Your task to perform on an android device: turn off airplane mode Image 0: 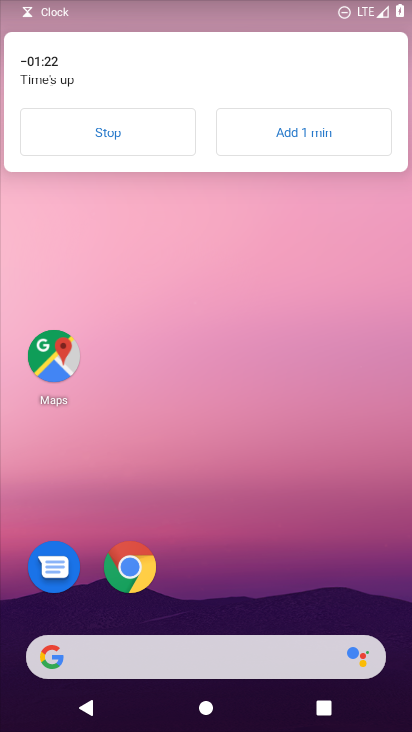
Step 0: click (124, 136)
Your task to perform on an android device: turn off airplane mode Image 1: 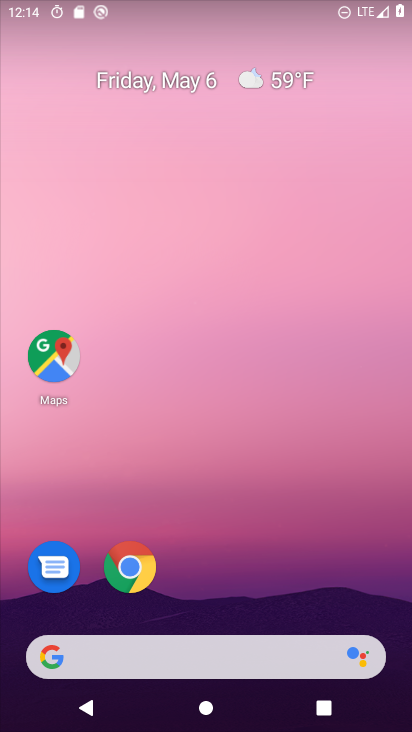
Step 1: drag from (284, 534) to (293, 13)
Your task to perform on an android device: turn off airplane mode Image 2: 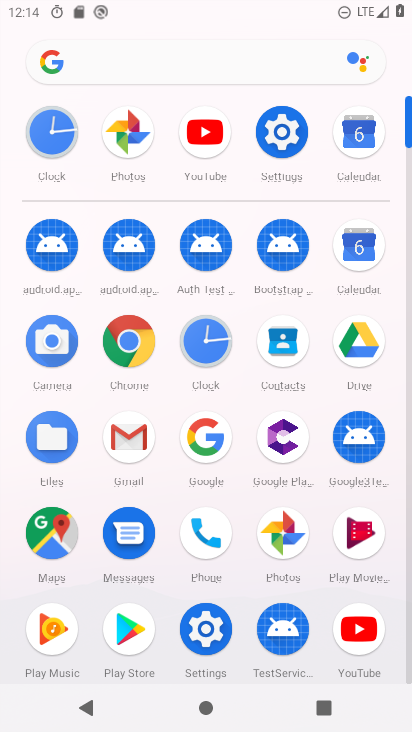
Step 2: click (279, 138)
Your task to perform on an android device: turn off airplane mode Image 3: 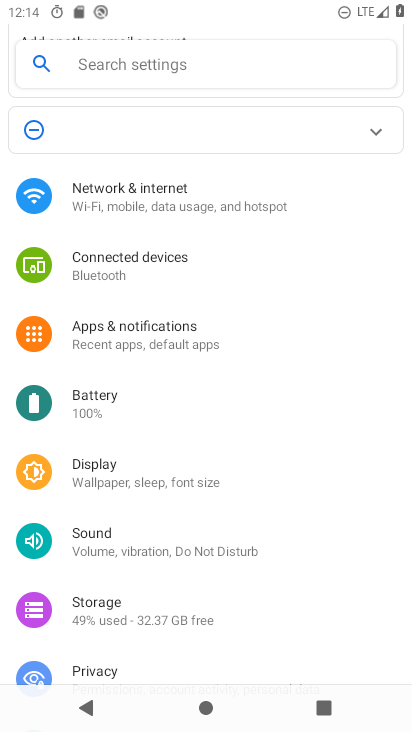
Step 3: click (154, 195)
Your task to perform on an android device: turn off airplane mode Image 4: 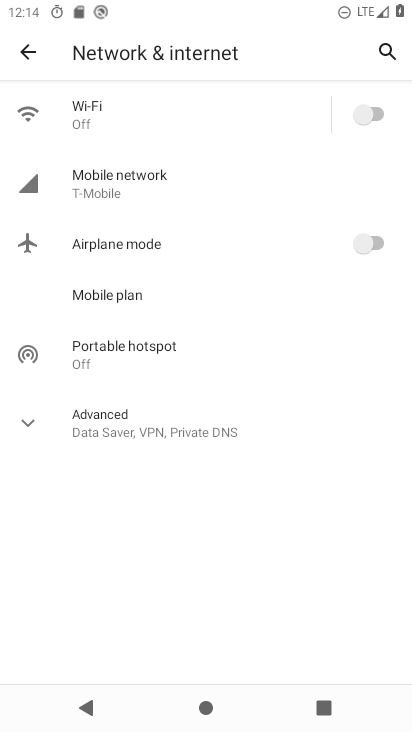
Step 4: task complete